Your task to perform on an android device: What's the weather today? Image 0: 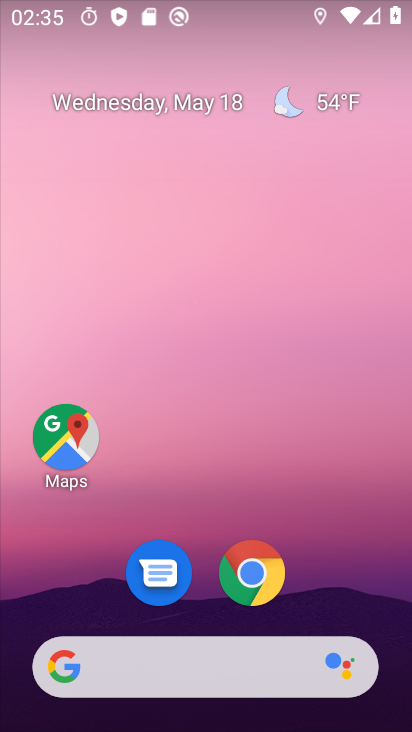
Step 0: drag from (203, 614) to (195, 224)
Your task to perform on an android device: What's the weather today? Image 1: 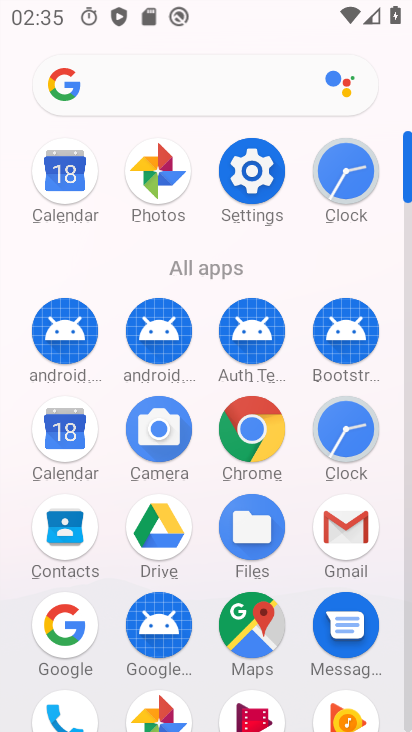
Step 1: click (85, 602)
Your task to perform on an android device: What's the weather today? Image 2: 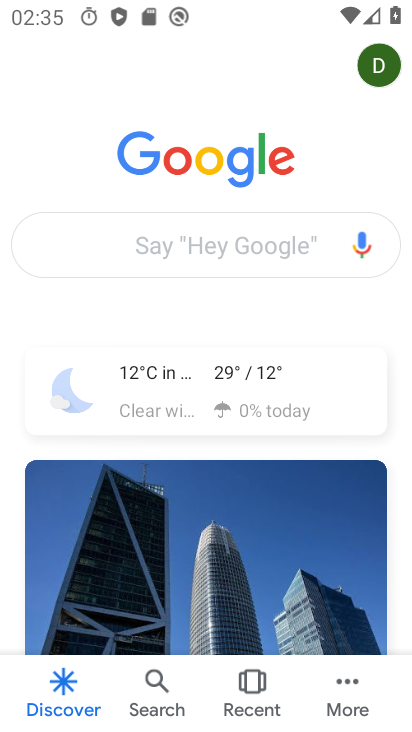
Step 2: click (121, 242)
Your task to perform on an android device: What's the weather today? Image 3: 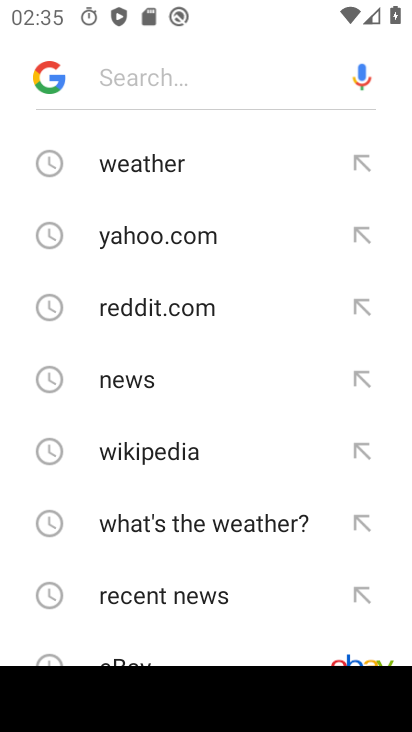
Step 3: click (150, 166)
Your task to perform on an android device: What's the weather today? Image 4: 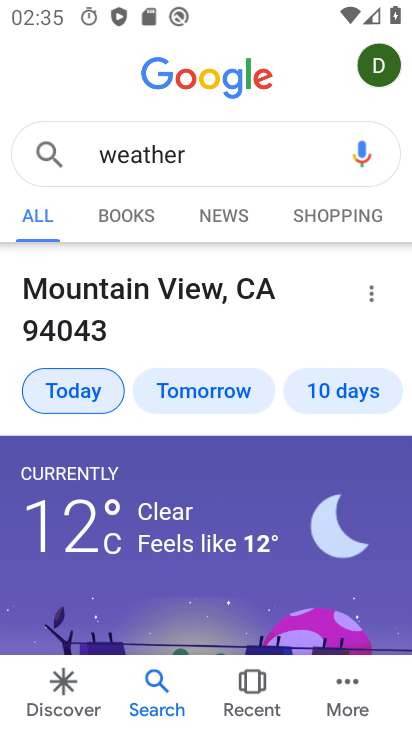
Step 4: task complete